Your task to perform on an android device: Open Yahoo.com Image 0: 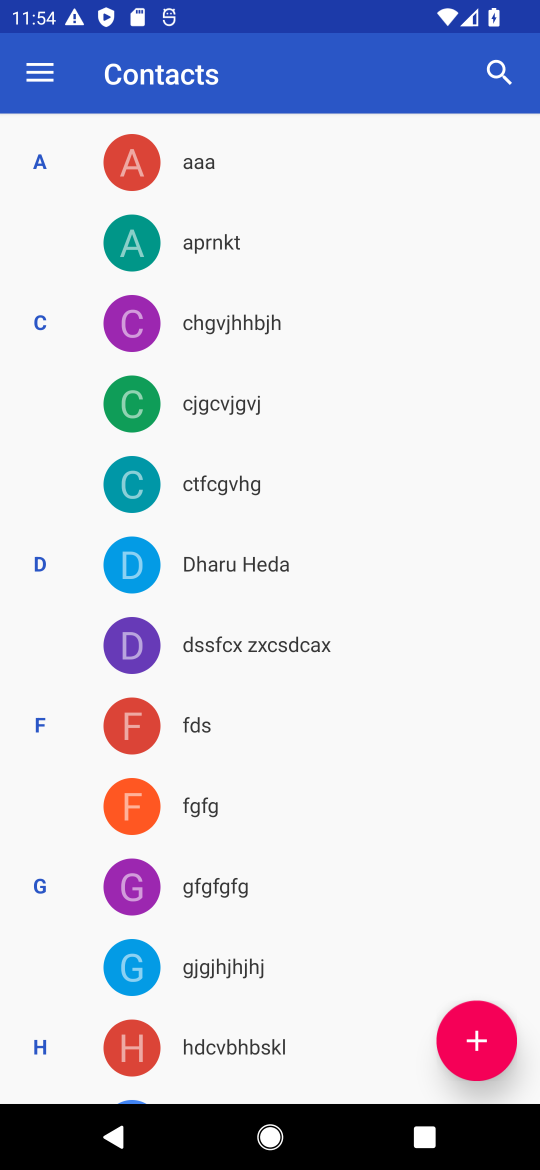
Step 0: press back button
Your task to perform on an android device: Open Yahoo.com Image 1: 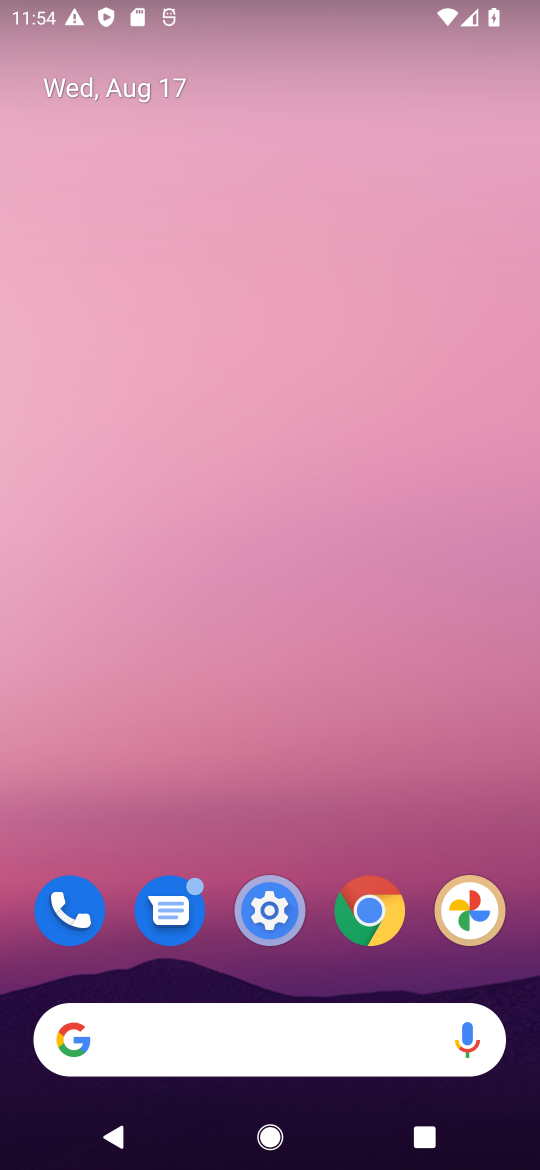
Step 1: click (366, 906)
Your task to perform on an android device: Open Yahoo.com Image 2: 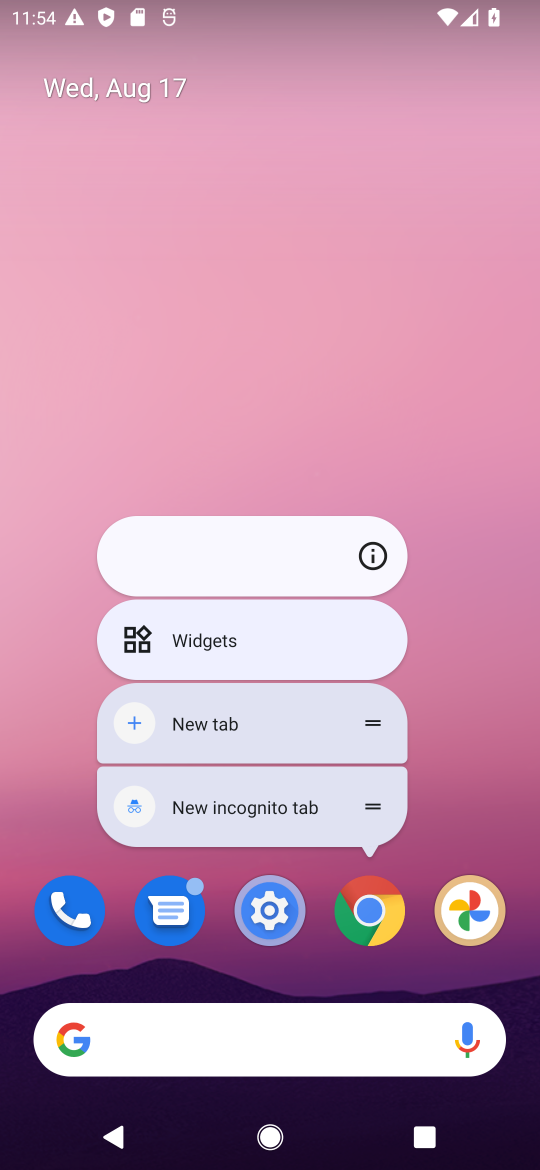
Step 2: click (372, 909)
Your task to perform on an android device: Open Yahoo.com Image 3: 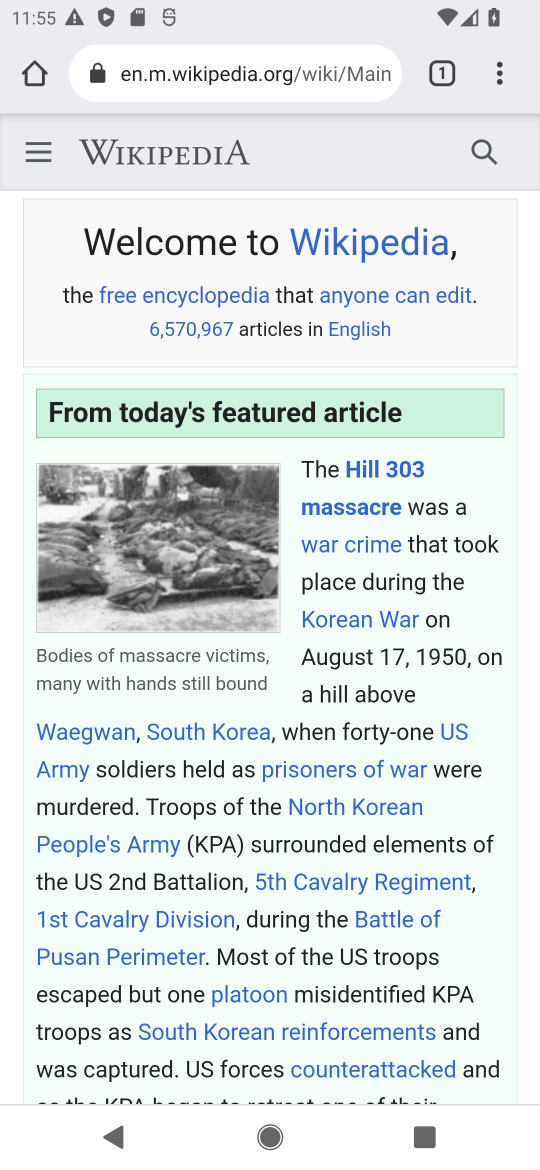
Step 3: click (442, 74)
Your task to perform on an android device: Open Yahoo.com Image 4: 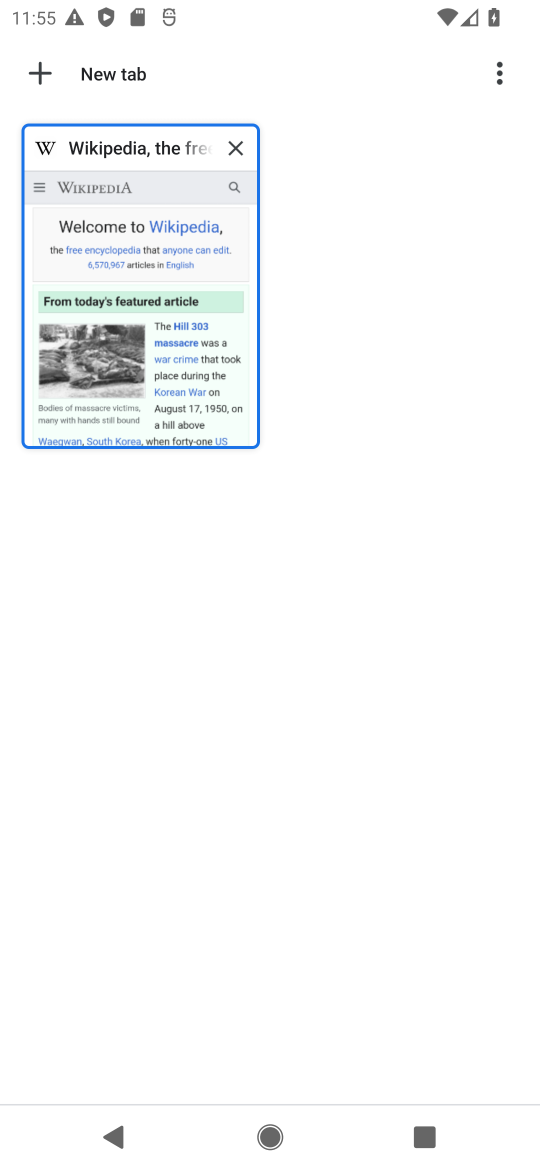
Step 4: click (33, 56)
Your task to perform on an android device: Open Yahoo.com Image 5: 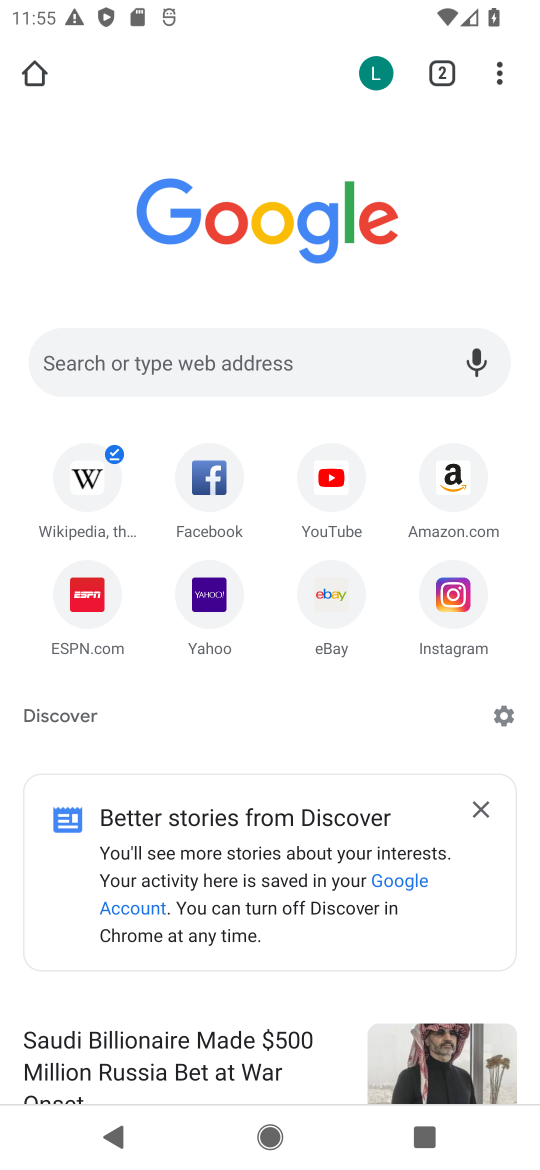
Step 5: click (201, 602)
Your task to perform on an android device: Open Yahoo.com Image 6: 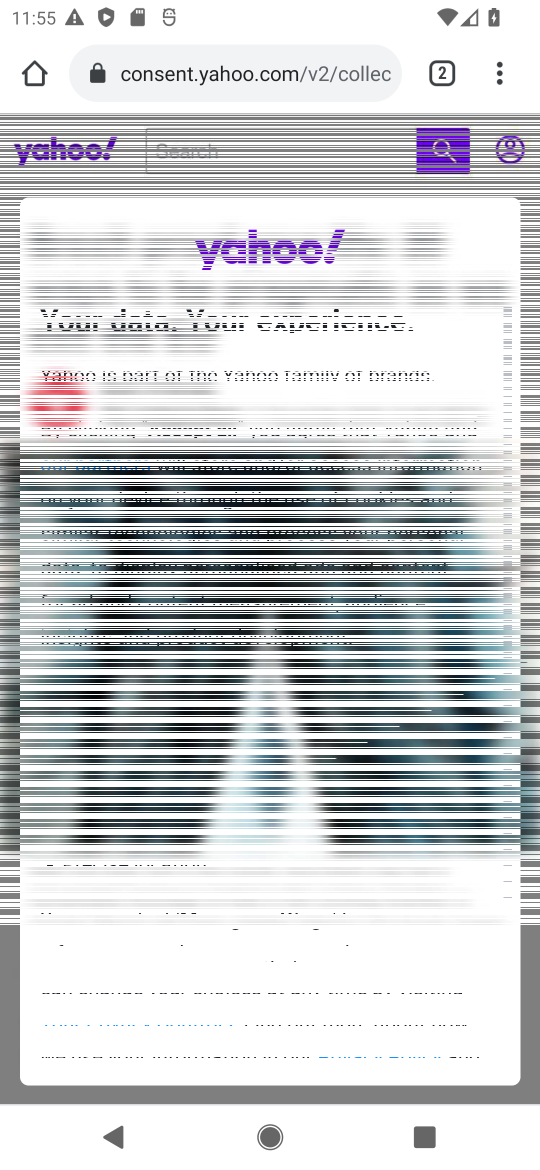
Step 6: task complete